Your task to perform on an android device: Search for Italian restaurants on Maps Image 0: 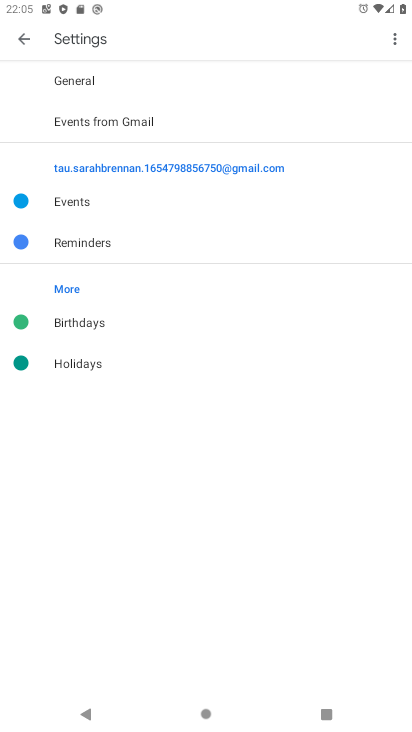
Step 0: press home button
Your task to perform on an android device: Search for Italian restaurants on Maps Image 1: 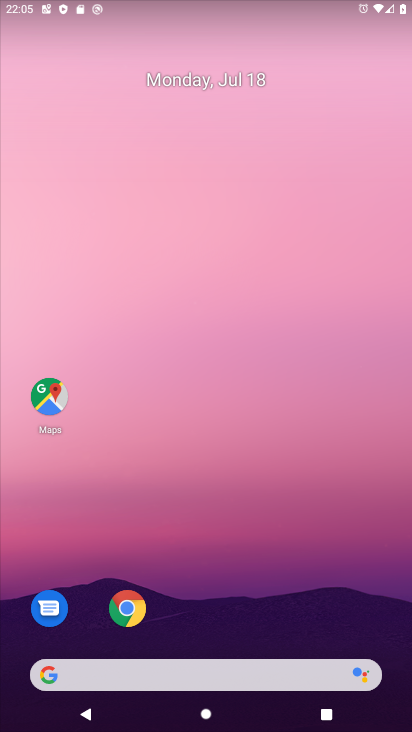
Step 1: click (47, 400)
Your task to perform on an android device: Search for Italian restaurants on Maps Image 2: 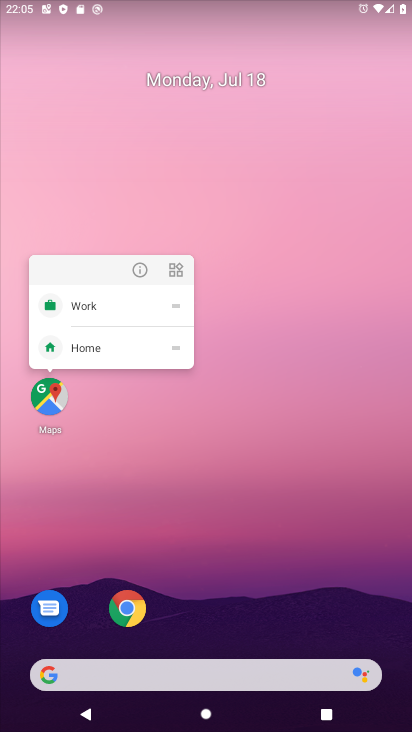
Step 2: click (37, 387)
Your task to perform on an android device: Search for Italian restaurants on Maps Image 3: 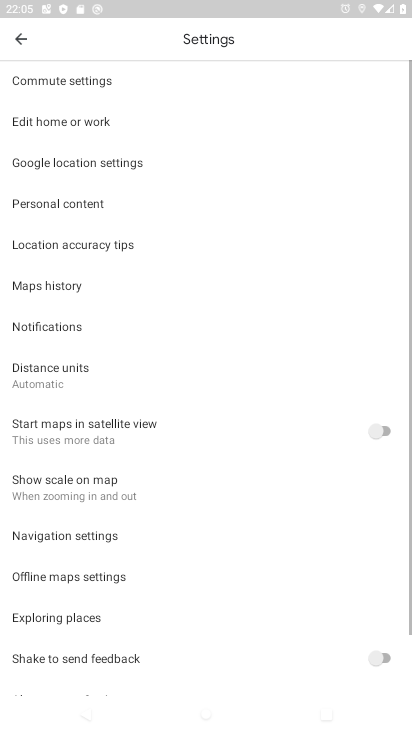
Step 3: click (19, 36)
Your task to perform on an android device: Search for Italian restaurants on Maps Image 4: 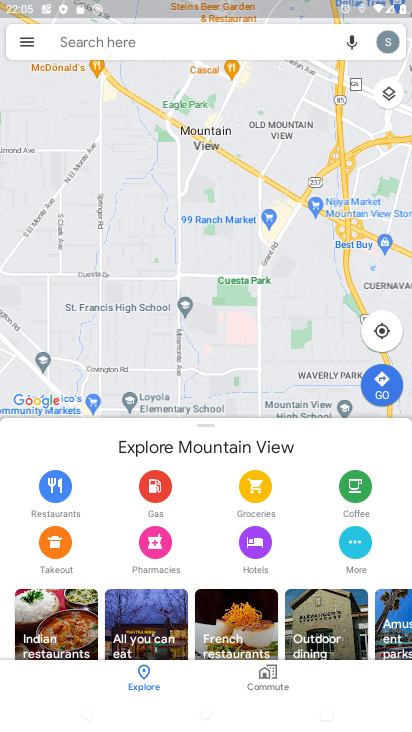
Step 4: click (69, 42)
Your task to perform on an android device: Search for Italian restaurants on Maps Image 5: 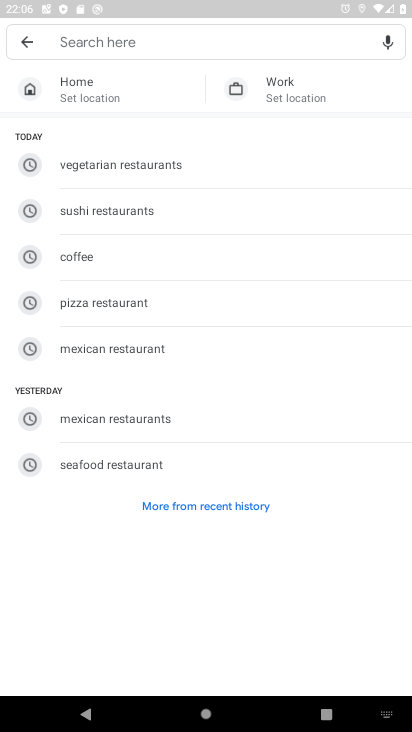
Step 5: type " Italian restaurants"
Your task to perform on an android device: Search for Italian restaurants on Maps Image 6: 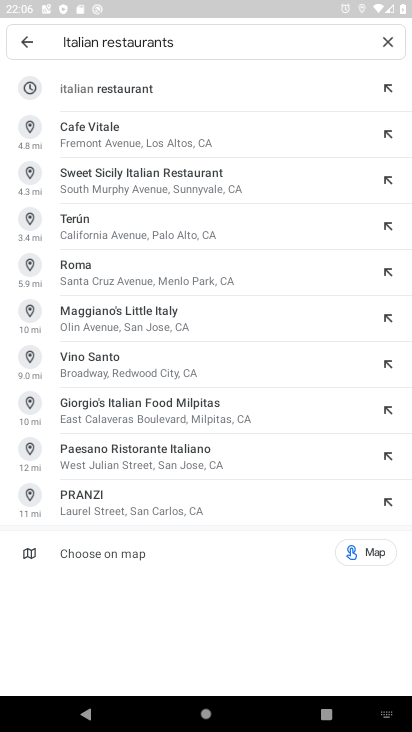
Step 6: click (114, 87)
Your task to perform on an android device: Search for Italian restaurants on Maps Image 7: 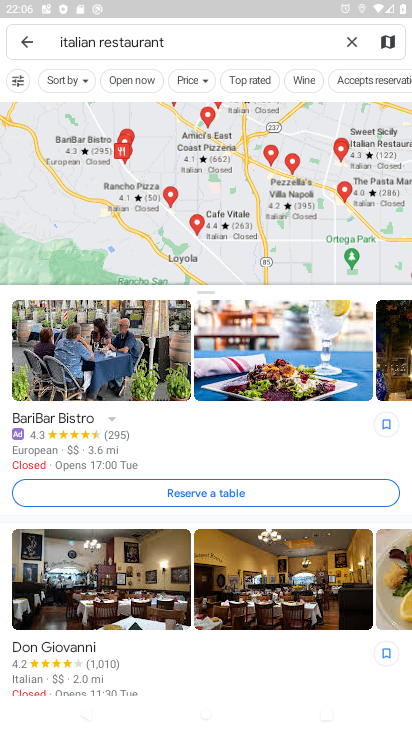
Step 7: task complete